Your task to perform on an android device: move a message to another label in the gmail app Image 0: 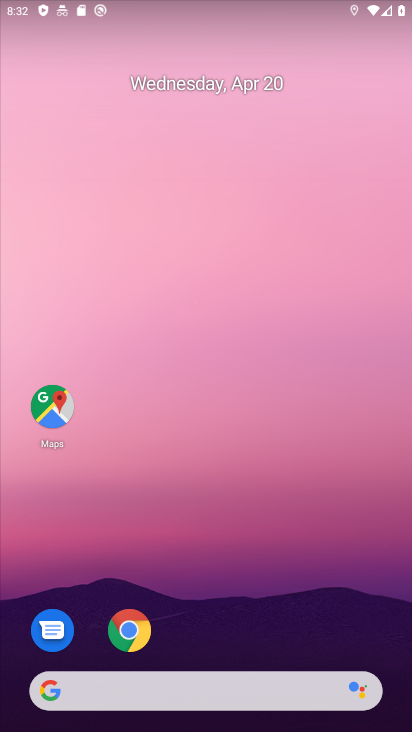
Step 0: drag from (196, 652) to (253, 38)
Your task to perform on an android device: move a message to another label in the gmail app Image 1: 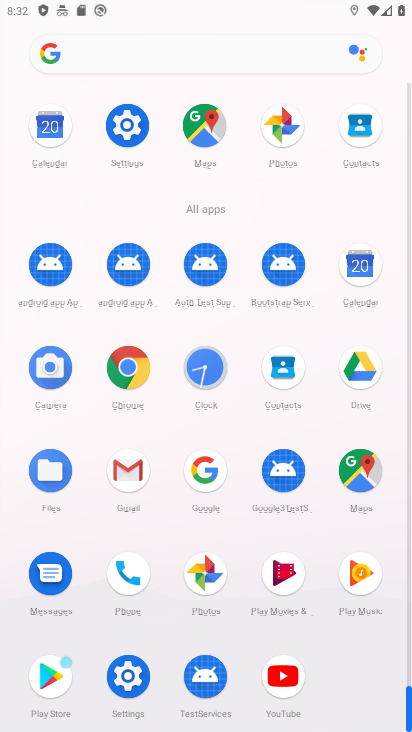
Step 1: click (122, 477)
Your task to perform on an android device: move a message to another label in the gmail app Image 2: 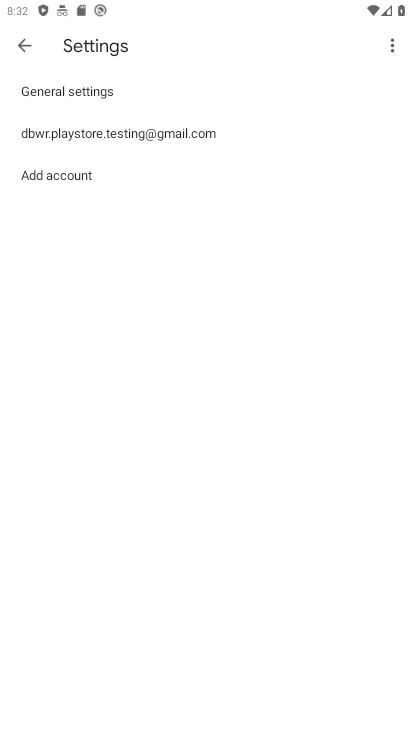
Step 2: click (26, 42)
Your task to perform on an android device: move a message to another label in the gmail app Image 3: 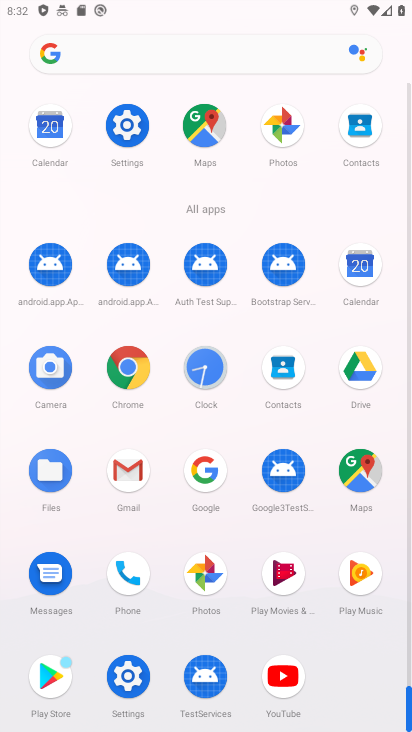
Step 3: click (117, 472)
Your task to perform on an android device: move a message to another label in the gmail app Image 4: 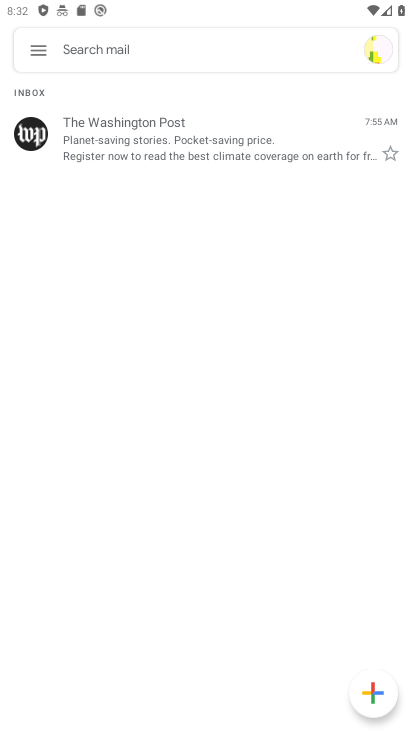
Step 4: click (34, 128)
Your task to perform on an android device: move a message to another label in the gmail app Image 5: 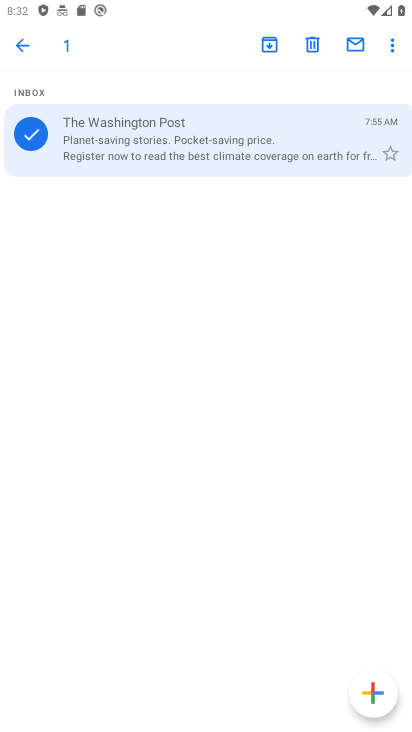
Step 5: click (403, 44)
Your task to perform on an android device: move a message to another label in the gmail app Image 6: 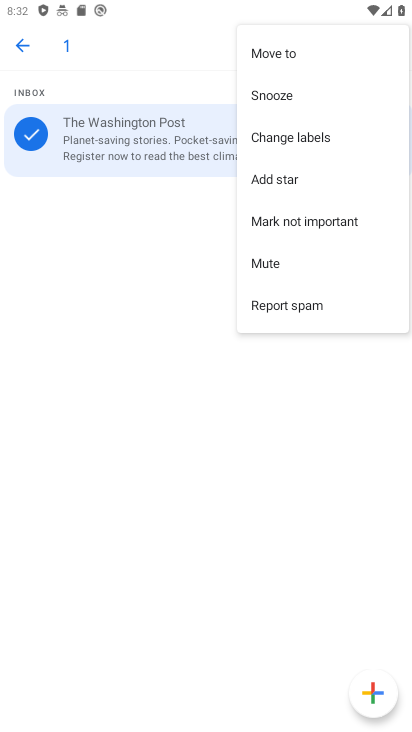
Step 6: click (288, 50)
Your task to perform on an android device: move a message to another label in the gmail app Image 7: 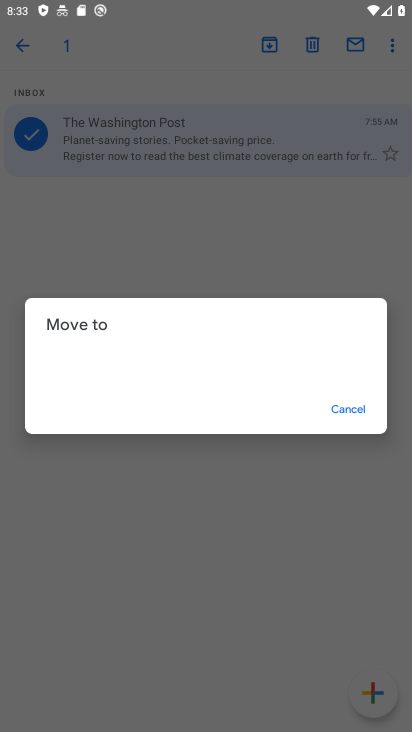
Step 7: click (215, 368)
Your task to perform on an android device: move a message to another label in the gmail app Image 8: 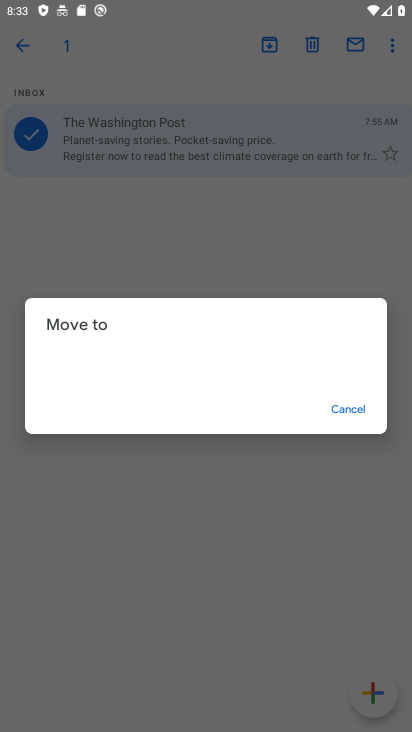
Step 8: click (343, 412)
Your task to perform on an android device: move a message to another label in the gmail app Image 9: 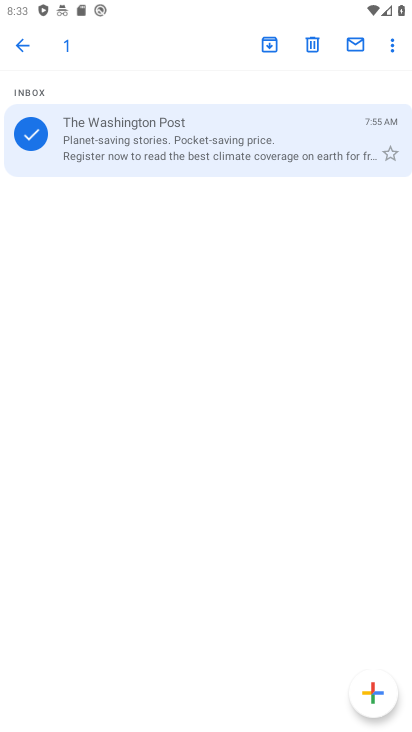
Step 9: click (384, 45)
Your task to perform on an android device: move a message to another label in the gmail app Image 10: 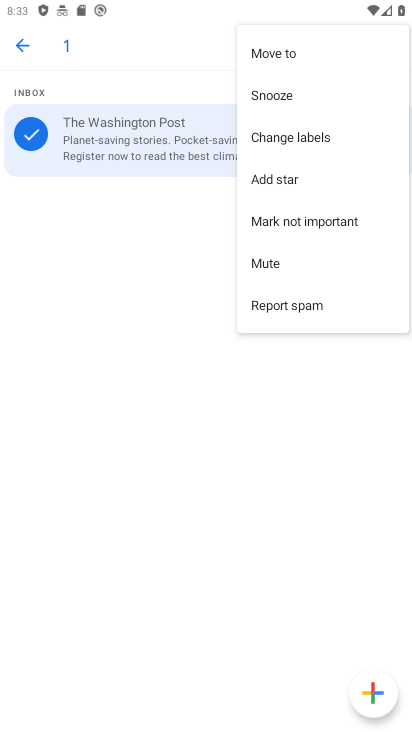
Step 10: click (308, 131)
Your task to perform on an android device: move a message to another label in the gmail app Image 11: 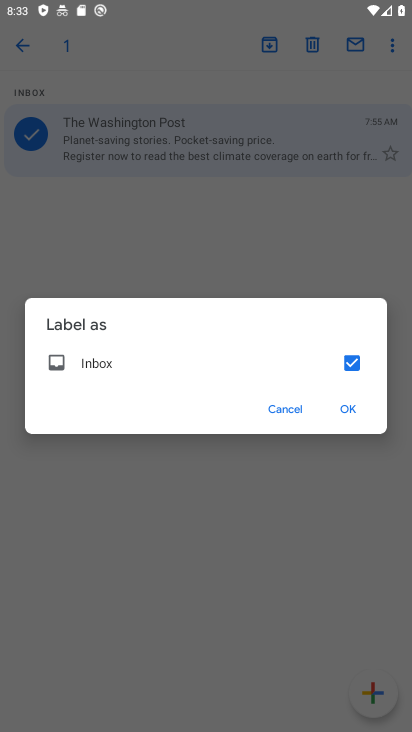
Step 11: click (352, 350)
Your task to perform on an android device: move a message to another label in the gmail app Image 12: 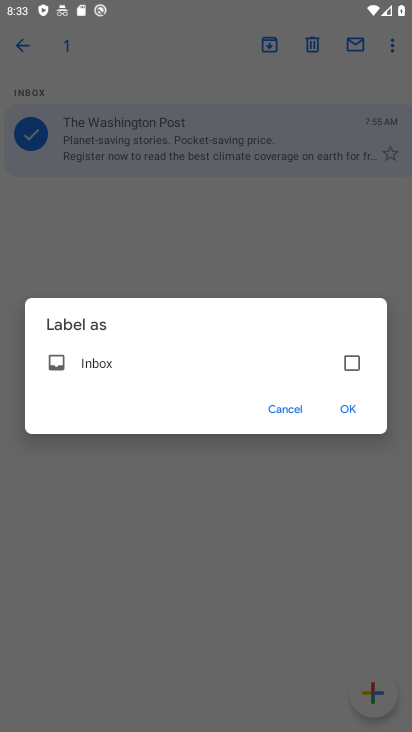
Step 12: click (339, 406)
Your task to perform on an android device: move a message to another label in the gmail app Image 13: 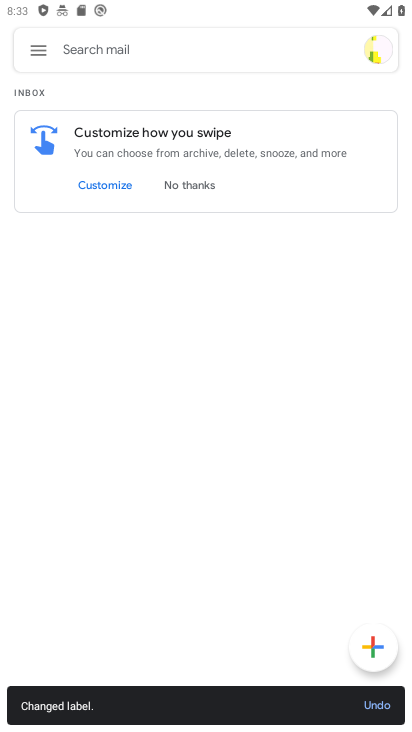
Step 13: task complete